Your task to perform on an android device: change notification settings in the gmail app Image 0: 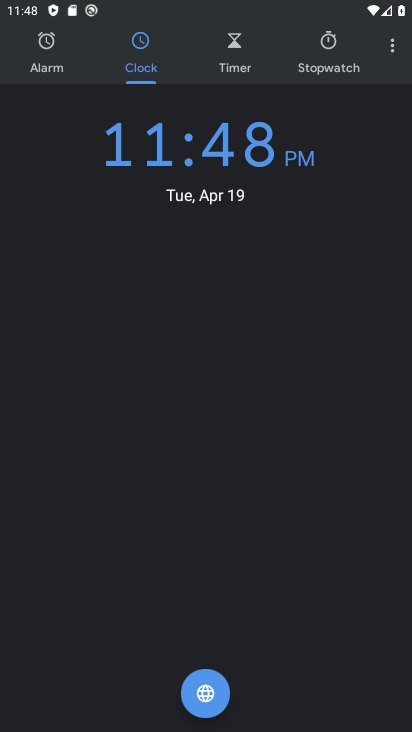
Step 0: press home button
Your task to perform on an android device: change notification settings in the gmail app Image 1: 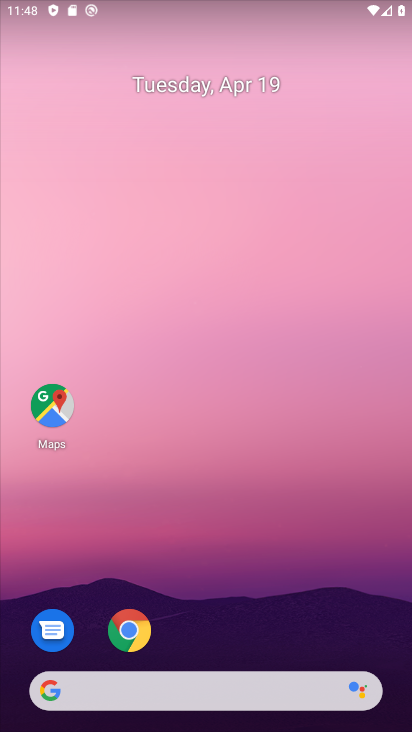
Step 1: drag from (232, 601) to (389, 29)
Your task to perform on an android device: change notification settings in the gmail app Image 2: 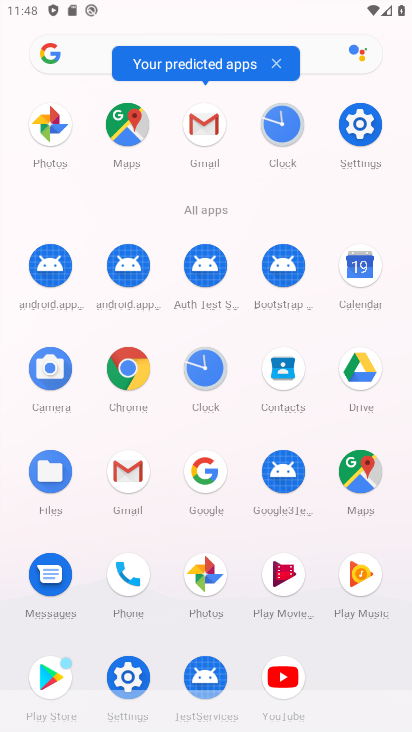
Step 2: click (198, 139)
Your task to perform on an android device: change notification settings in the gmail app Image 3: 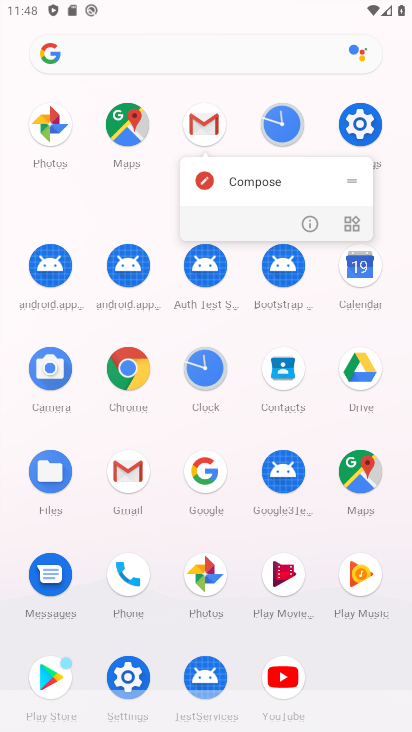
Step 3: click (210, 131)
Your task to perform on an android device: change notification settings in the gmail app Image 4: 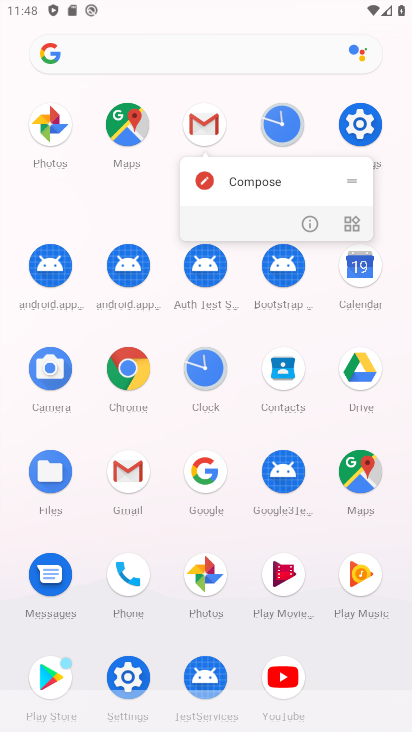
Step 4: click (203, 130)
Your task to perform on an android device: change notification settings in the gmail app Image 5: 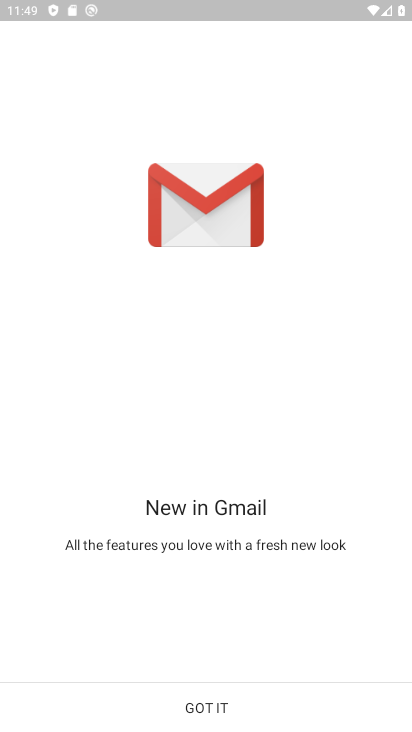
Step 5: click (204, 712)
Your task to perform on an android device: change notification settings in the gmail app Image 6: 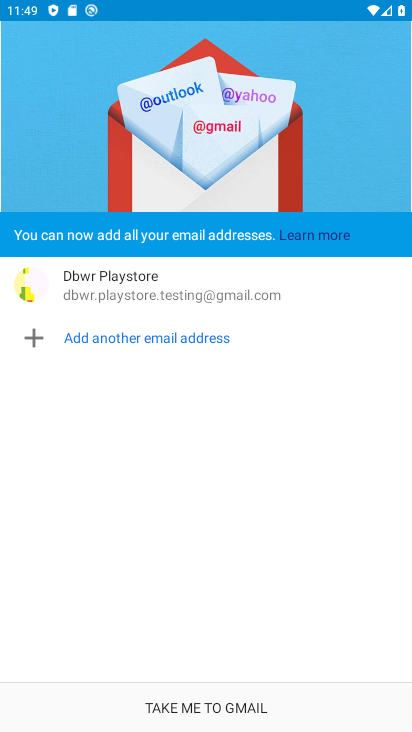
Step 6: click (214, 706)
Your task to perform on an android device: change notification settings in the gmail app Image 7: 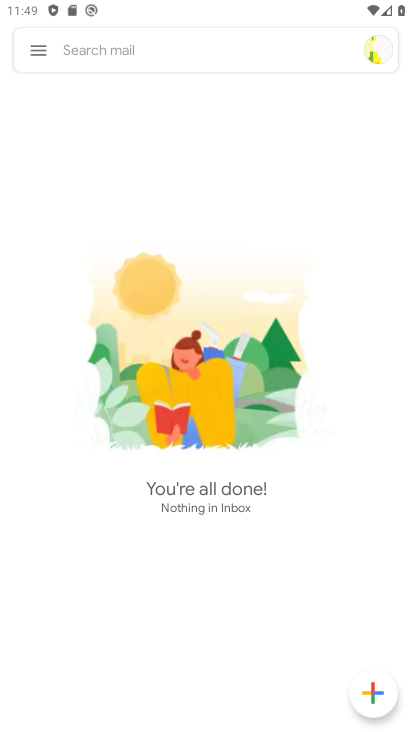
Step 7: click (39, 47)
Your task to perform on an android device: change notification settings in the gmail app Image 8: 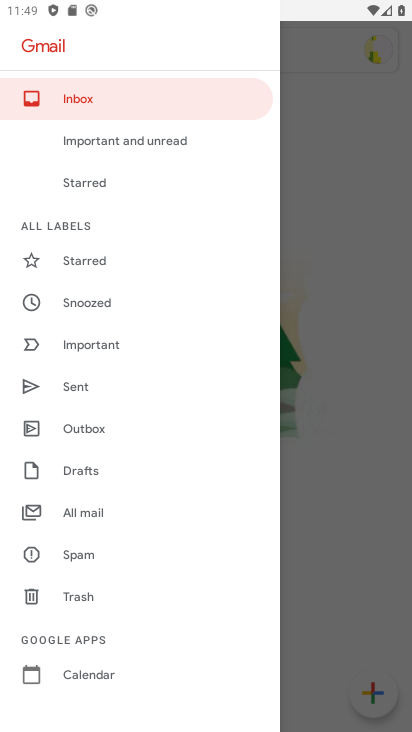
Step 8: drag from (128, 598) to (267, 125)
Your task to perform on an android device: change notification settings in the gmail app Image 9: 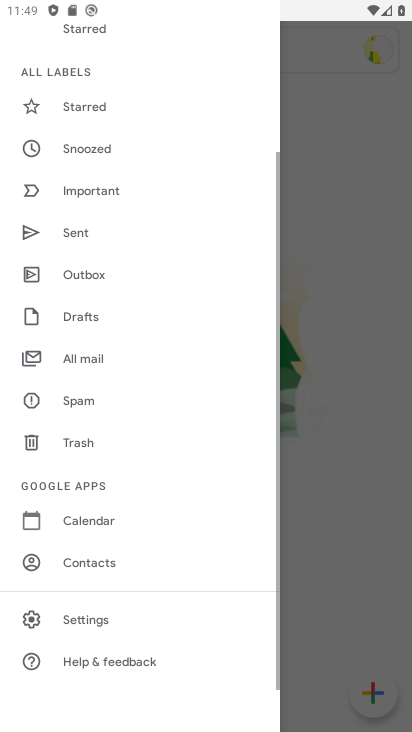
Step 9: click (99, 622)
Your task to perform on an android device: change notification settings in the gmail app Image 10: 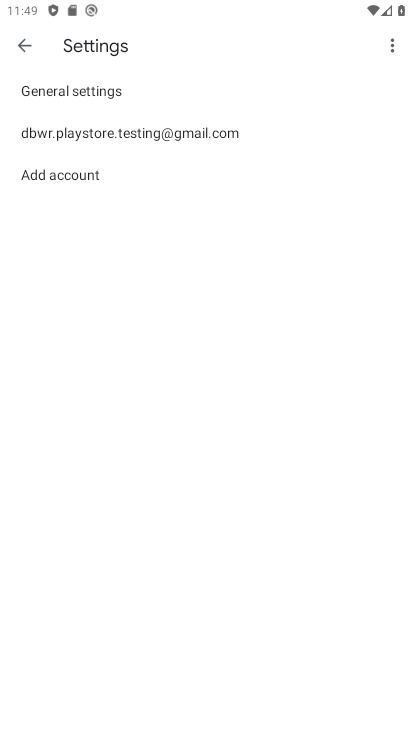
Step 10: click (133, 128)
Your task to perform on an android device: change notification settings in the gmail app Image 11: 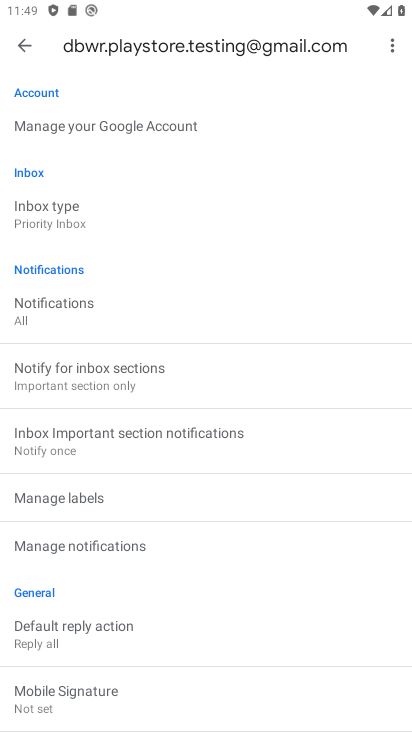
Step 11: click (22, 300)
Your task to perform on an android device: change notification settings in the gmail app Image 12: 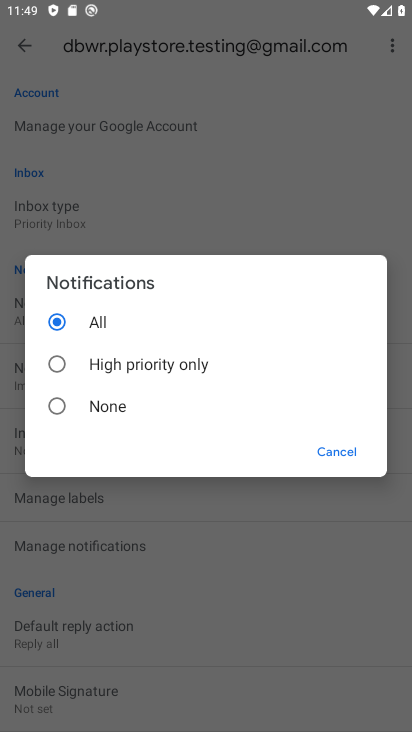
Step 12: click (62, 405)
Your task to perform on an android device: change notification settings in the gmail app Image 13: 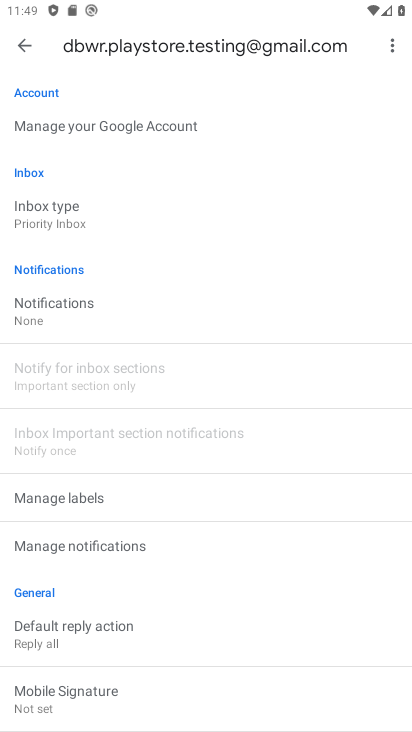
Step 13: task complete